Your task to perform on an android device: Go to settings Image 0: 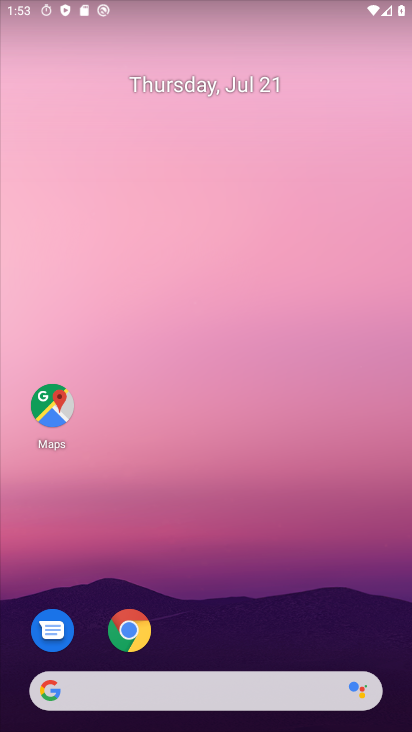
Step 0: drag from (201, 635) to (279, 128)
Your task to perform on an android device: Go to settings Image 1: 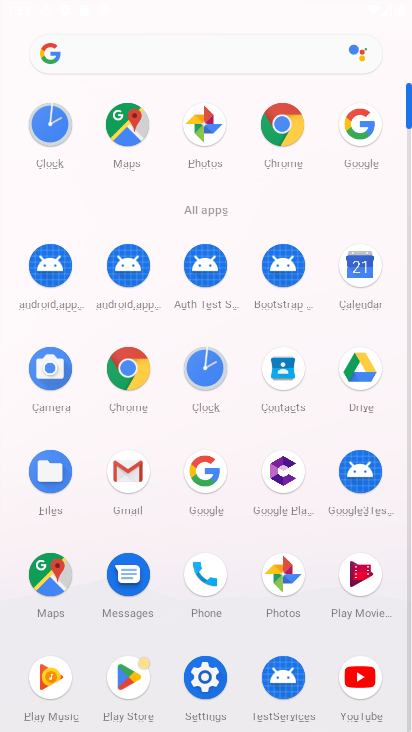
Step 1: click (202, 677)
Your task to perform on an android device: Go to settings Image 2: 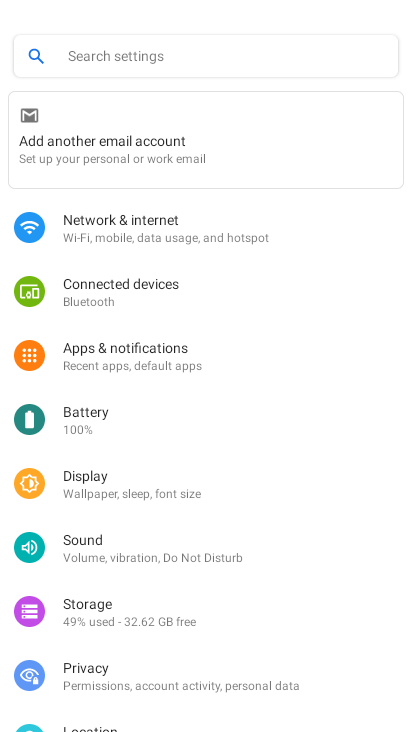
Step 2: task complete